Your task to perform on an android device: turn on notifications settings in the gmail app Image 0: 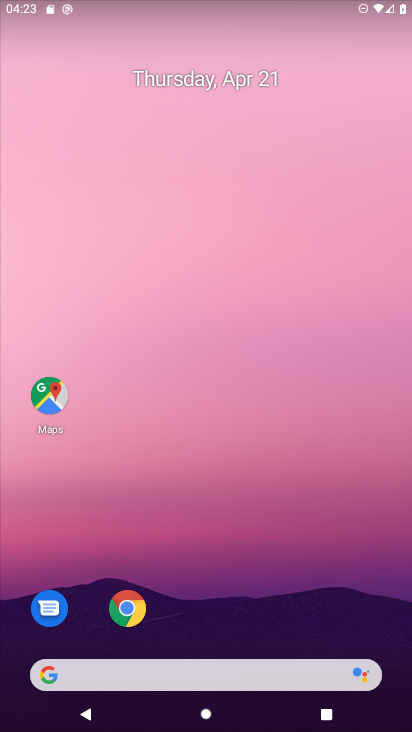
Step 0: drag from (250, 465) to (291, 10)
Your task to perform on an android device: turn on notifications settings in the gmail app Image 1: 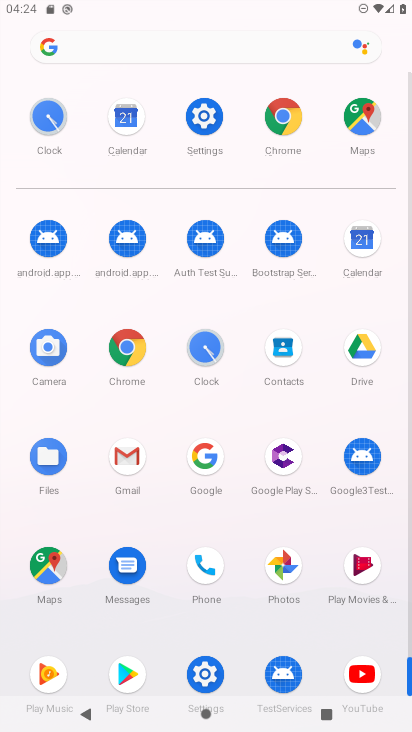
Step 1: click (122, 447)
Your task to perform on an android device: turn on notifications settings in the gmail app Image 2: 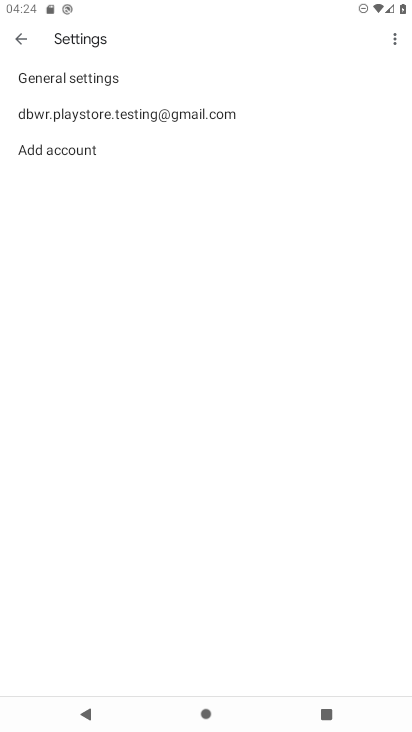
Step 2: click (146, 118)
Your task to perform on an android device: turn on notifications settings in the gmail app Image 3: 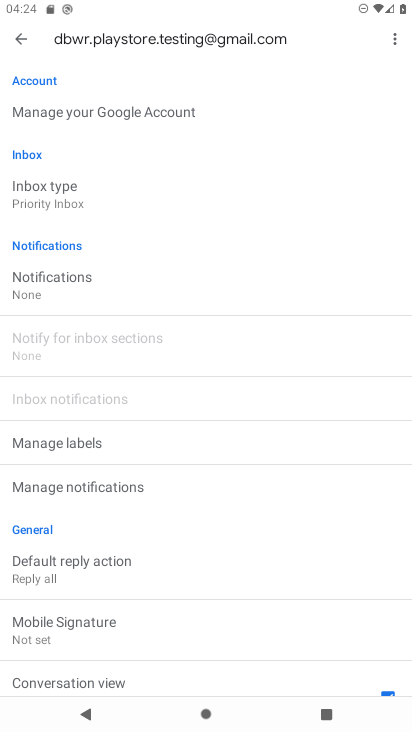
Step 3: click (120, 286)
Your task to perform on an android device: turn on notifications settings in the gmail app Image 4: 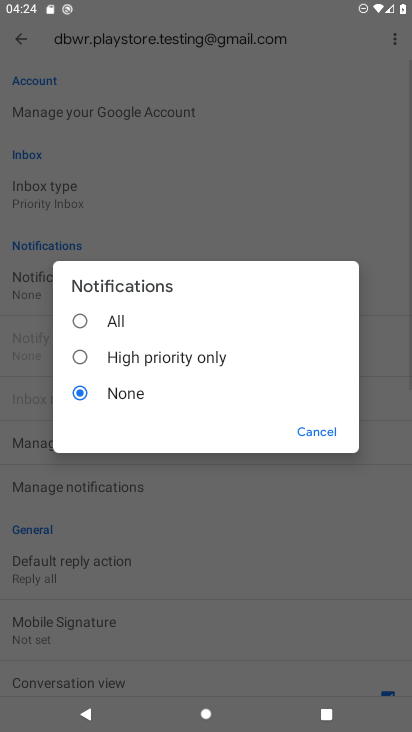
Step 4: click (124, 311)
Your task to perform on an android device: turn on notifications settings in the gmail app Image 5: 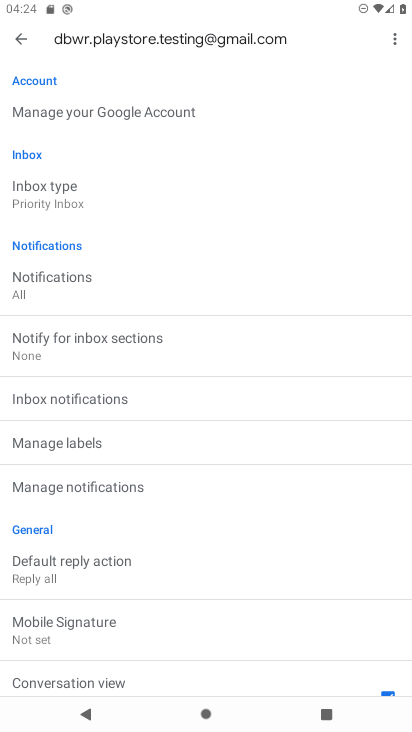
Step 5: task complete